Your task to perform on an android device: Open sound settings Image 0: 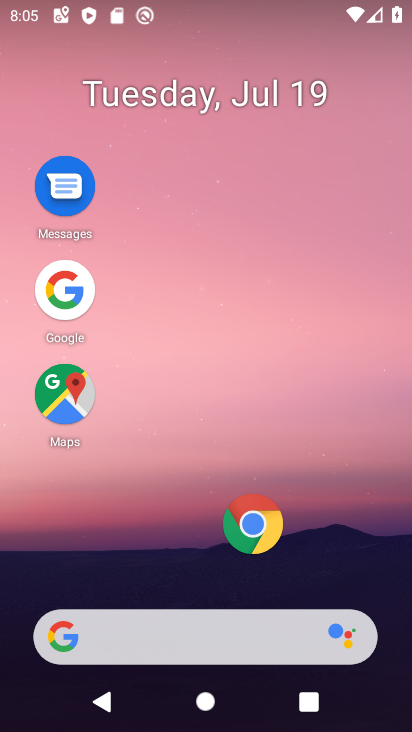
Step 0: drag from (223, 596) to (210, 15)
Your task to perform on an android device: Open sound settings Image 1: 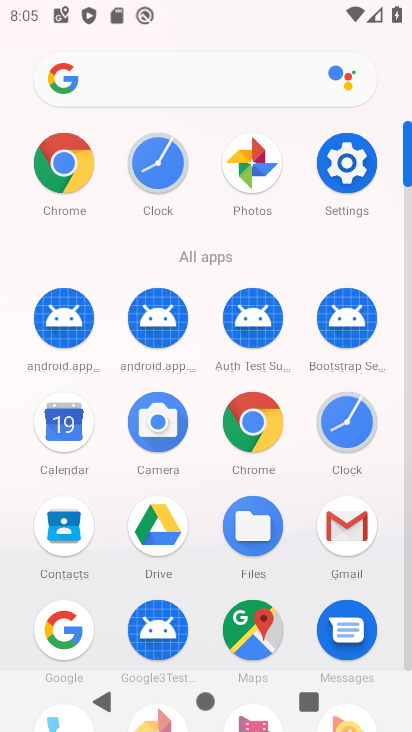
Step 1: click (356, 177)
Your task to perform on an android device: Open sound settings Image 2: 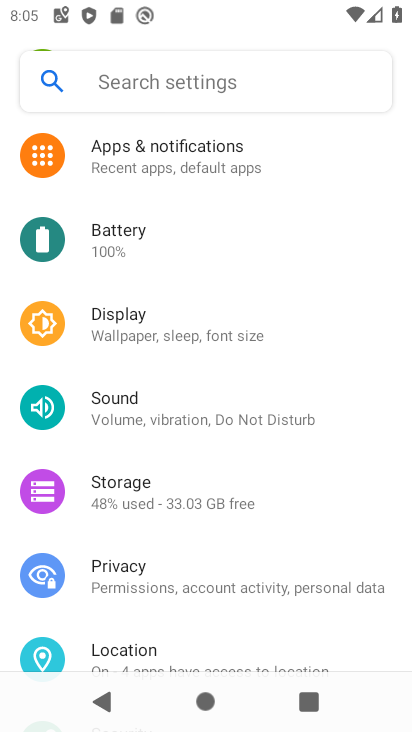
Step 2: click (89, 399)
Your task to perform on an android device: Open sound settings Image 3: 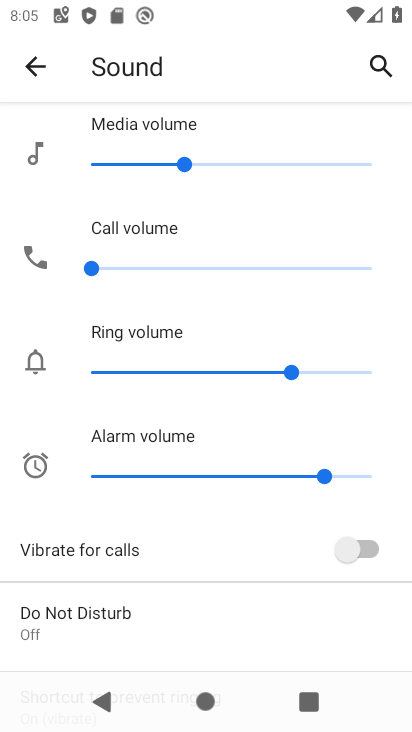
Step 3: drag from (159, 569) to (159, 115)
Your task to perform on an android device: Open sound settings Image 4: 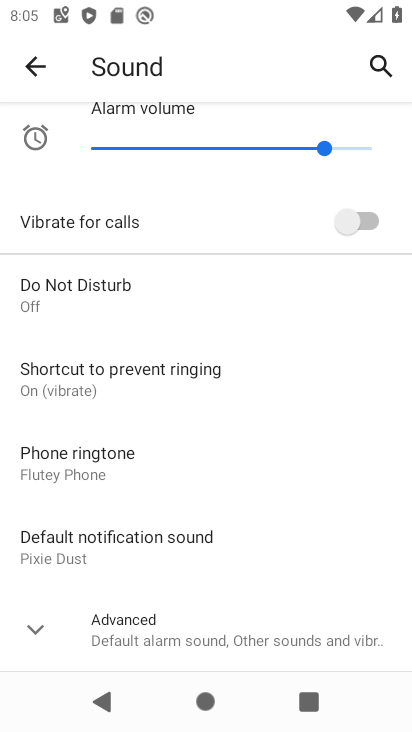
Step 4: click (52, 612)
Your task to perform on an android device: Open sound settings Image 5: 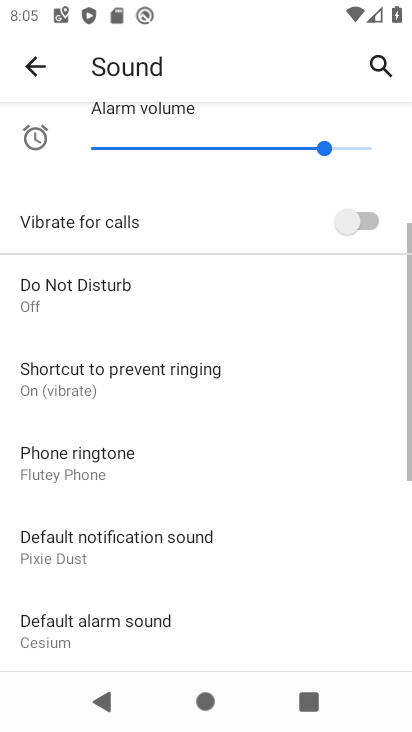
Step 5: task complete